Your task to perform on an android device: open wifi settings Image 0: 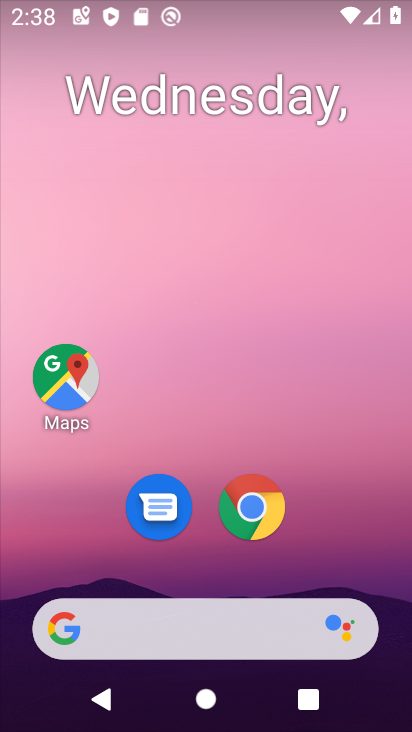
Step 0: drag from (301, 550) to (278, 56)
Your task to perform on an android device: open wifi settings Image 1: 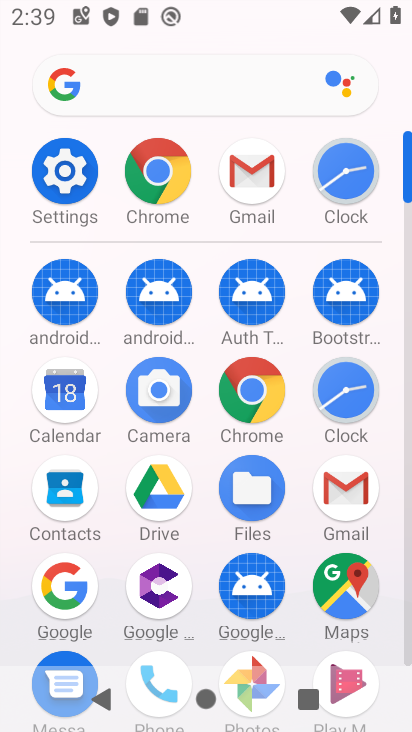
Step 1: click (59, 171)
Your task to perform on an android device: open wifi settings Image 2: 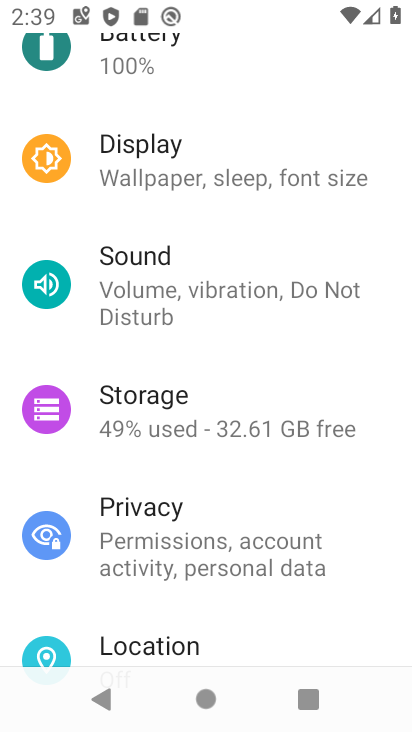
Step 2: drag from (203, 95) to (202, 539)
Your task to perform on an android device: open wifi settings Image 3: 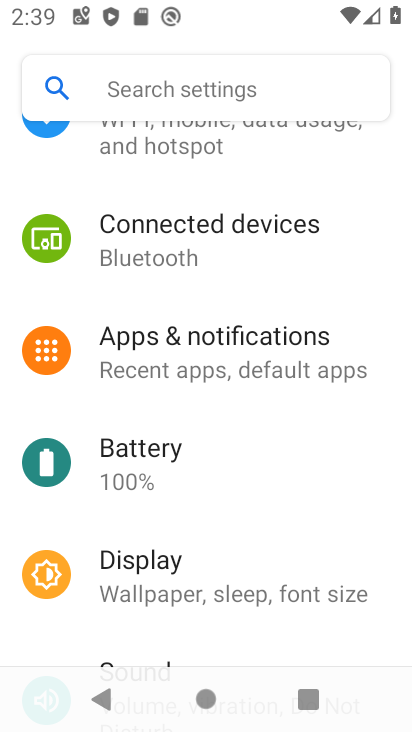
Step 3: drag from (221, 213) to (250, 616)
Your task to perform on an android device: open wifi settings Image 4: 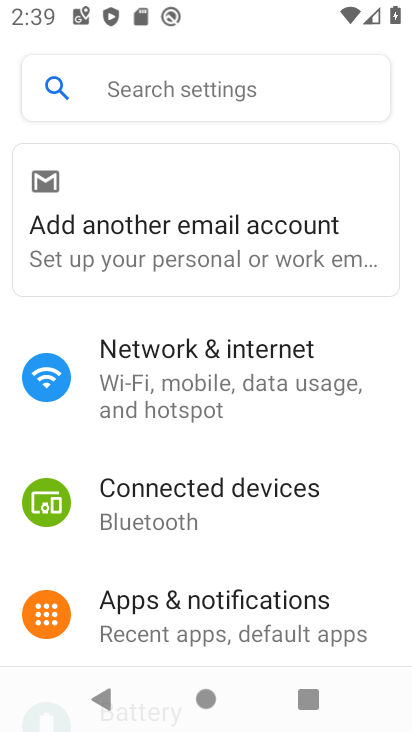
Step 4: click (197, 400)
Your task to perform on an android device: open wifi settings Image 5: 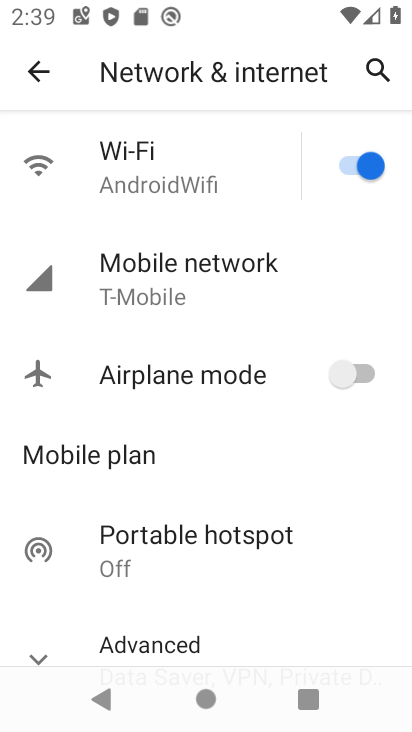
Step 5: click (63, 194)
Your task to perform on an android device: open wifi settings Image 6: 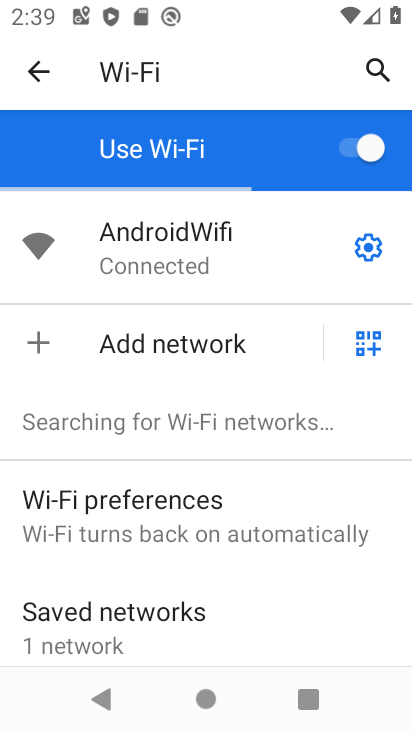
Step 6: task complete